Your task to perform on an android device: choose inbox layout in the gmail app Image 0: 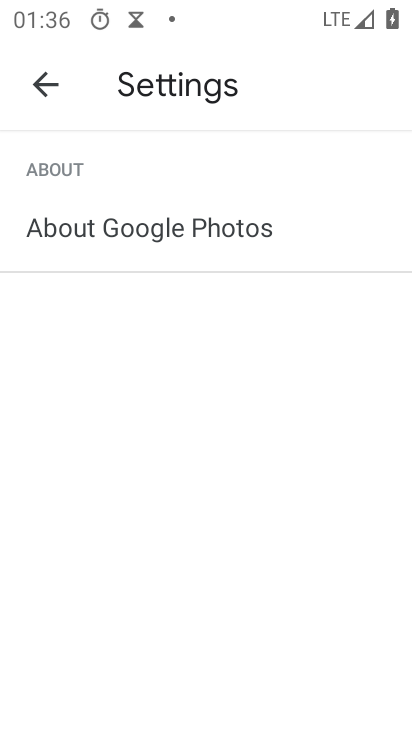
Step 0: press home button
Your task to perform on an android device: choose inbox layout in the gmail app Image 1: 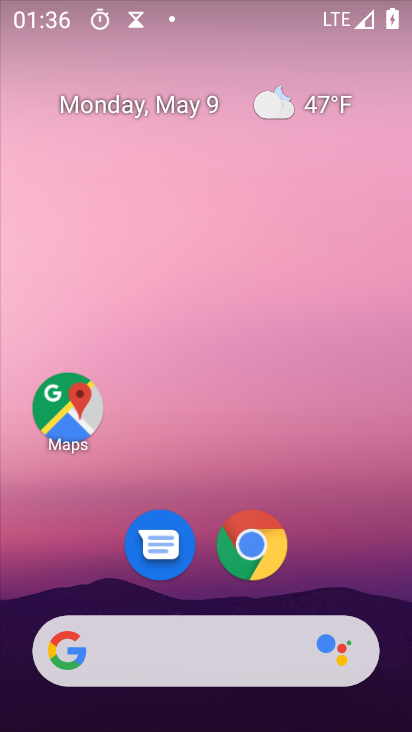
Step 1: drag from (227, 625) to (309, 4)
Your task to perform on an android device: choose inbox layout in the gmail app Image 2: 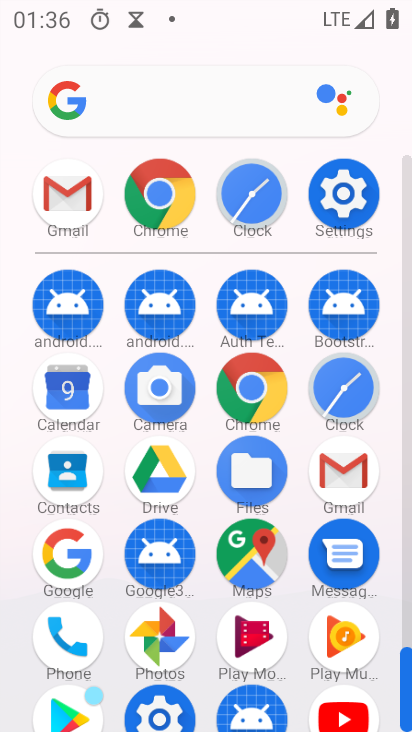
Step 2: click (367, 476)
Your task to perform on an android device: choose inbox layout in the gmail app Image 3: 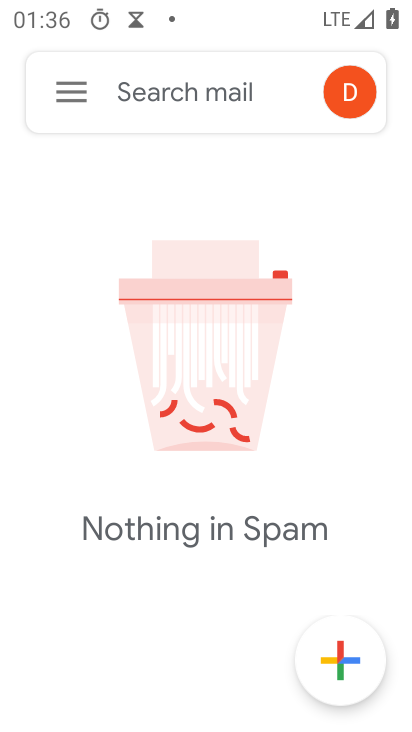
Step 3: click (69, 94)
Your task to perform on an android device: choose inbox layout in the gmail app Image 4: 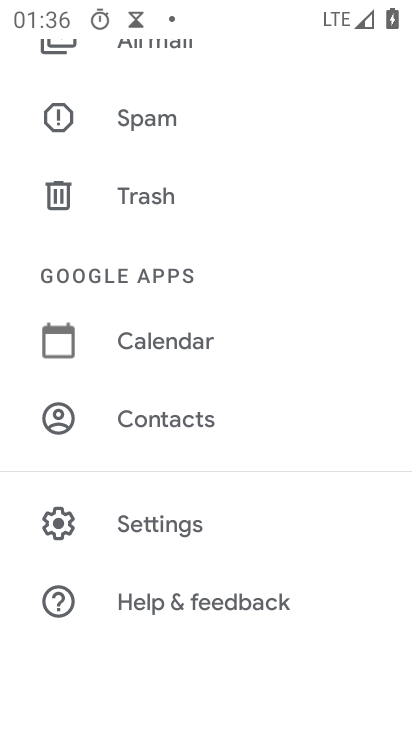
Step 4: click (187, 536)
Your task to perform on an android device: choose inbox layout in the gmail app Image 5: 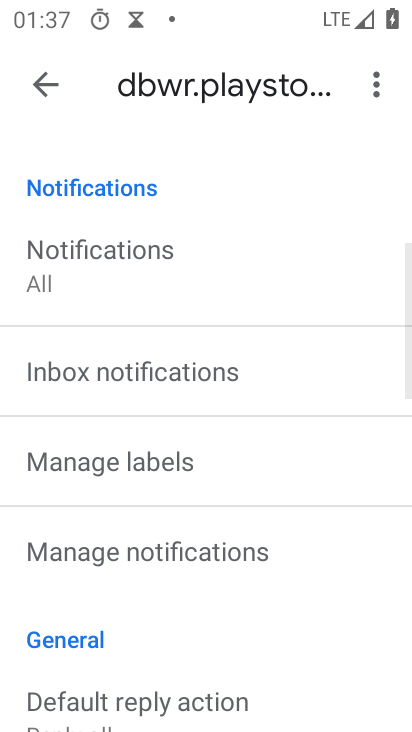
Step 5: drag from (209, 218) to (168, 727)
Your task to perform on an android device: choose inbox layout in the gmail app Image 6: 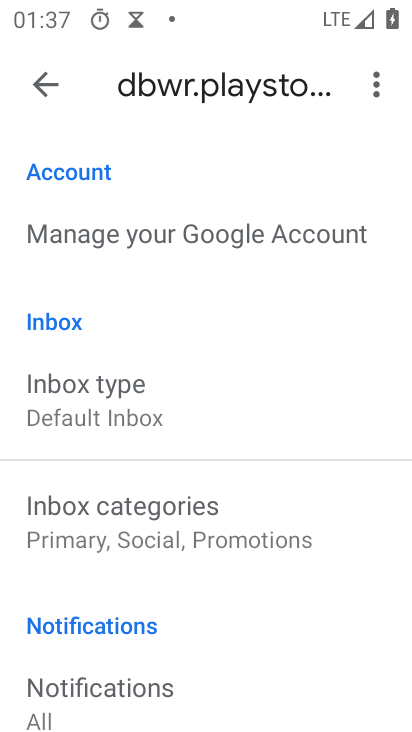
Step 6: click (168, 418)
Your task to perform on an android device: choose inbox layout in the gmail app Image 7: 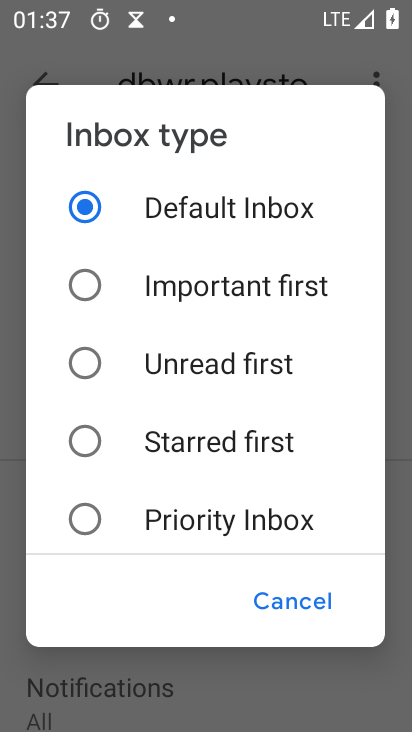
Step 7: click (81, 287)
Your task to perform on an android device: choose inbox layout in the gmail app Image 8: 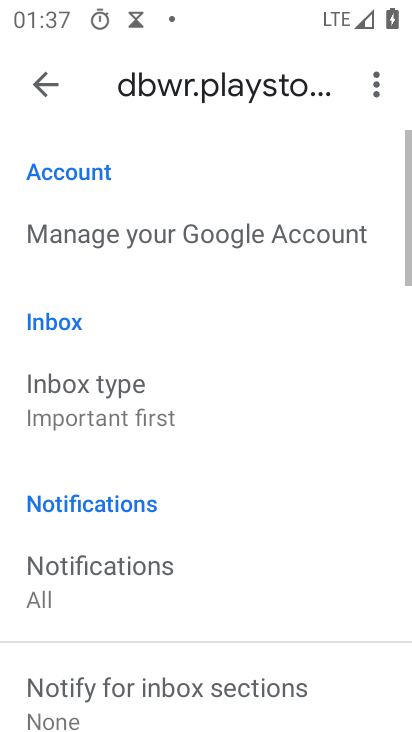
Step 8: task complete